Your task to perform on an android device: What's the weather going to be tomorrow? Image 0: 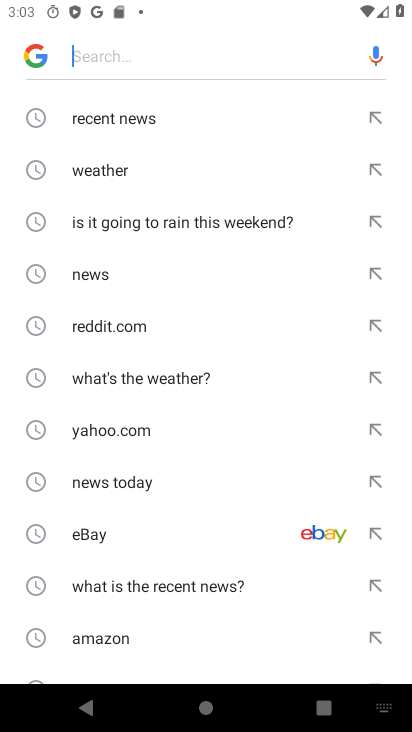
Step 0: type "weather tomorrow"
Your task to perform on an android device: What's the weather going to be tomorrow? Image 1: 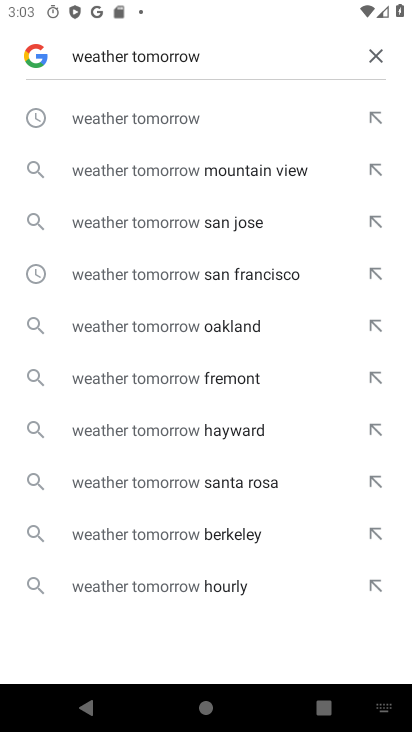
Step 1: click (163, 118)
Your task to perform on an android device: What's the weather going to be tomorrow? Image 2: 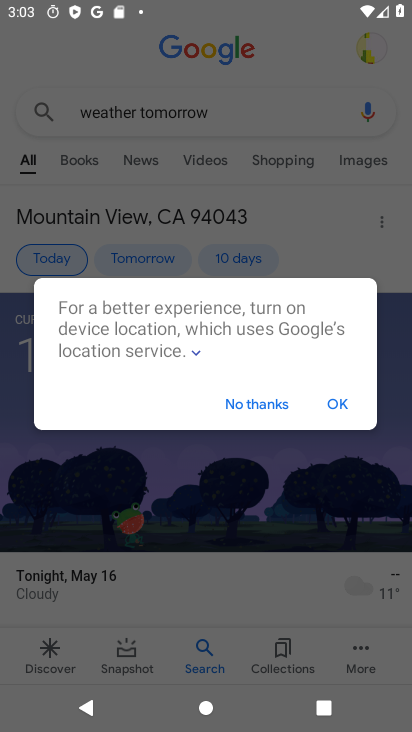
Step 2: click (283, 409)
Your task to perform on an android device: What's the weather going to be tomorrow? Image 3: 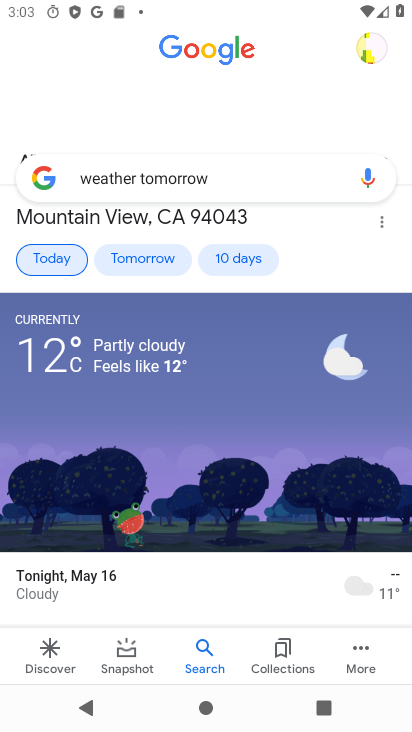
Step 3: click (146, 260)
Your task to perform on an android device: What's the weather going to be tomorrow? Image 4: 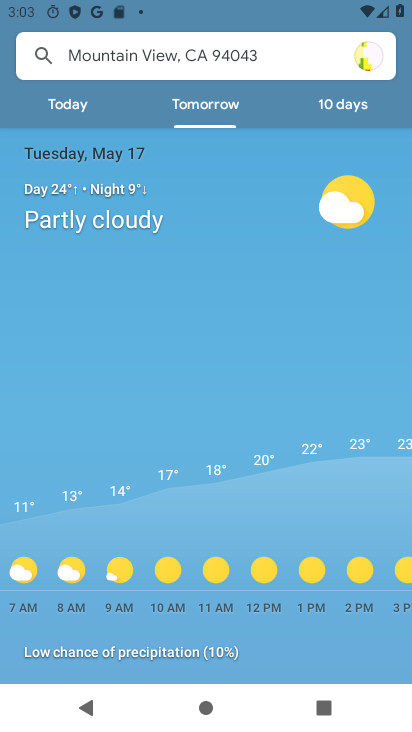
Step 4: task complete